Your task to perform on an android device: Open maps Image 0: 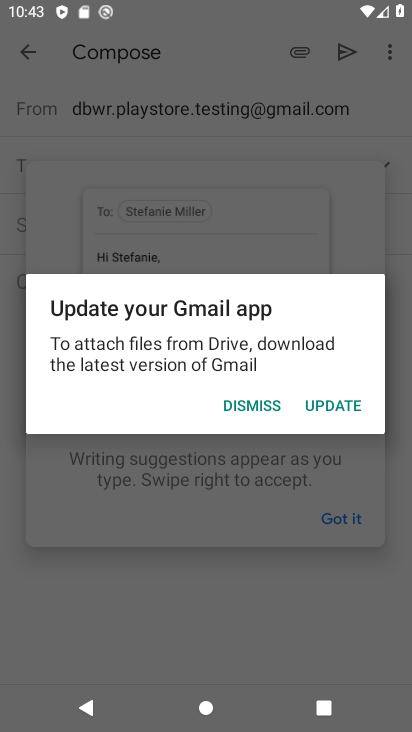
Step 0: press home button
Your task to perform on an android device: Open maps Image 1: 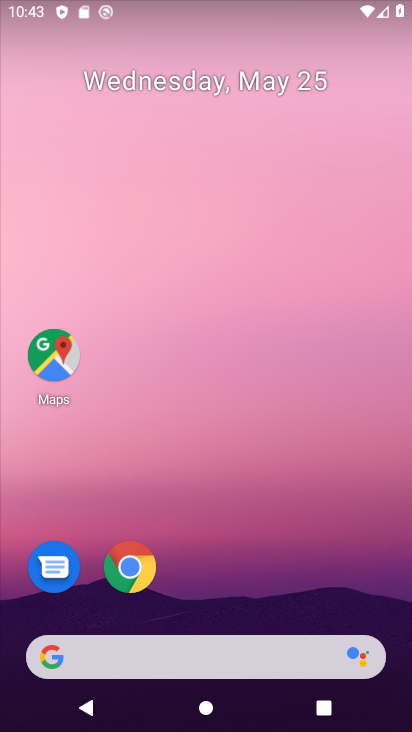
Step 1: click (56, 370)
Your task to perform on an android device: Open maps Image 2: 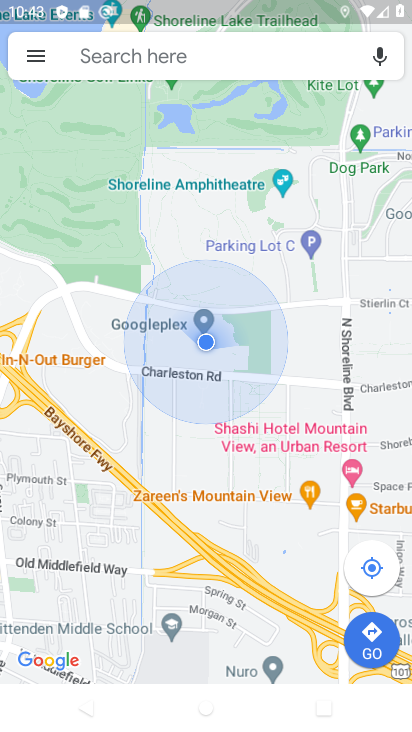
Step 2: task complete